Your task to perform on an android device: visit the assistant section in the google photos Image 0: 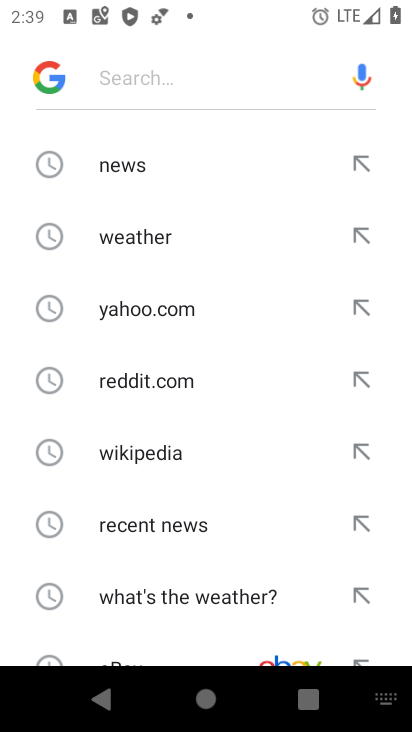
Step 0: press home button
Your task to perform on an android device: visit the assistant section in the google photos Image 1: 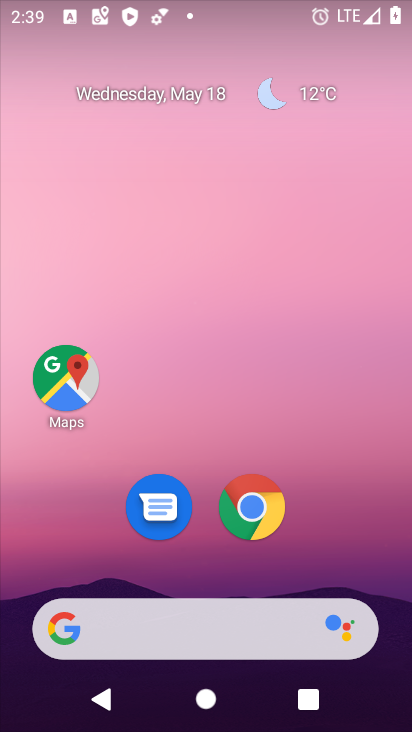
Step 1: drag from (395, 601) to (331, 62)
Your task to perform on an android device: visit the assistant section in the google photos Image 2: 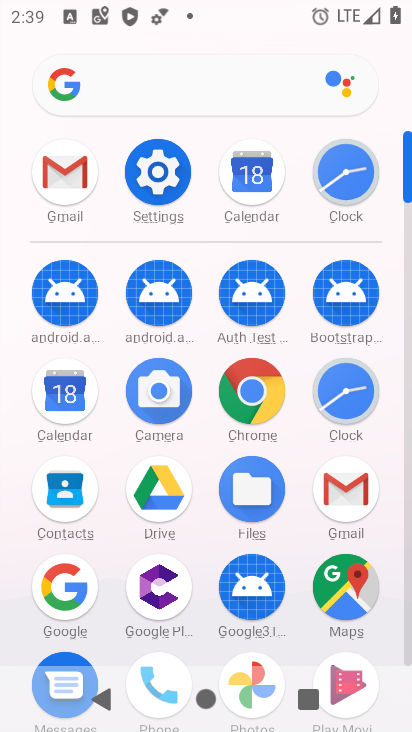
Step 2: click (406, 639)
Your task to perform on an android device: visit the assistant section in the google photos Image 3: 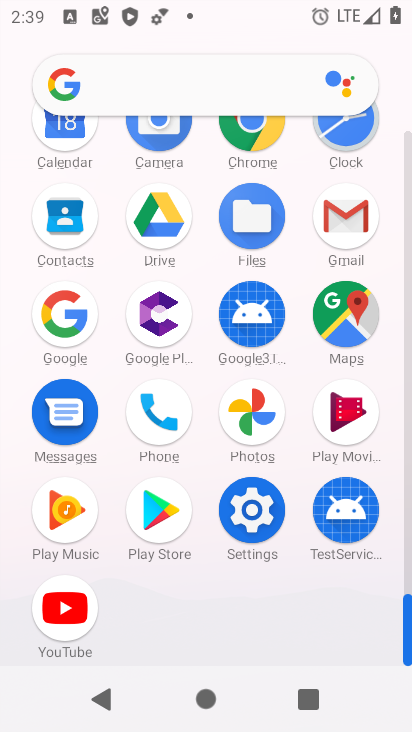
Step 3: click (250, 410)
Your task to perform on an android device: visit the assistant section in the google photos Image 4: 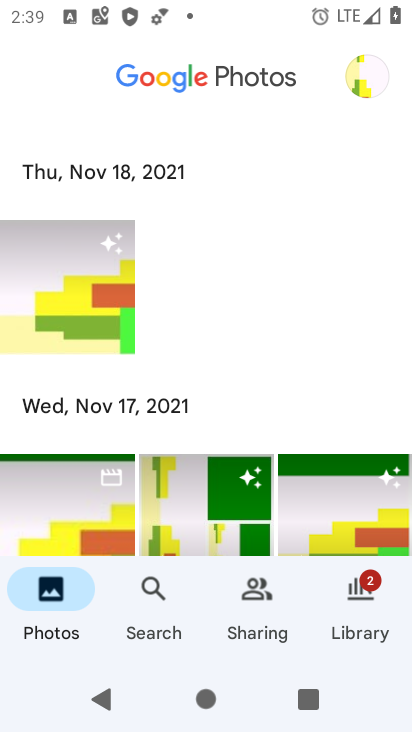
Step 4: click (354, 589)
Your task to perform on an android device: visit the assistant section in the google photos Image 5: 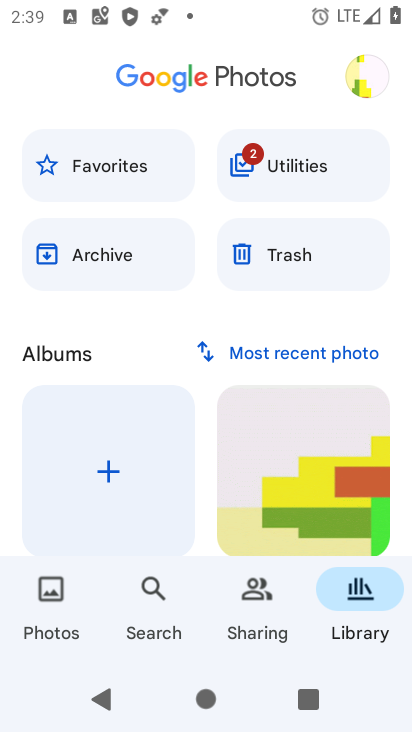
Step 5: task complete